Your task to perform on an android device: turn off javascript in the chrome app Image 0: 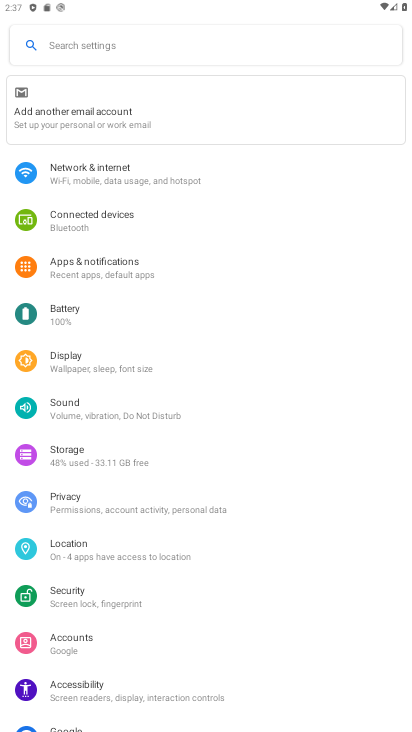
Step 0: press back button
Your task to perform on an android device: turn off javascript in the chrome app Image 1: 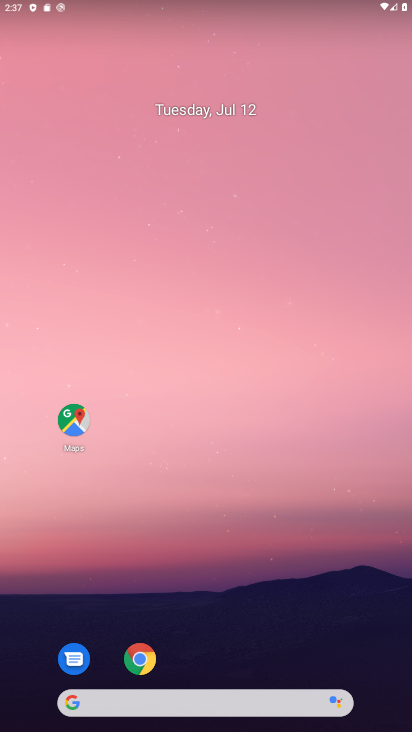
Step 1: drag from (252, 639) to (138, 188)
Your task to perform on an android device: turn off javascript in the chrome app Image 2: 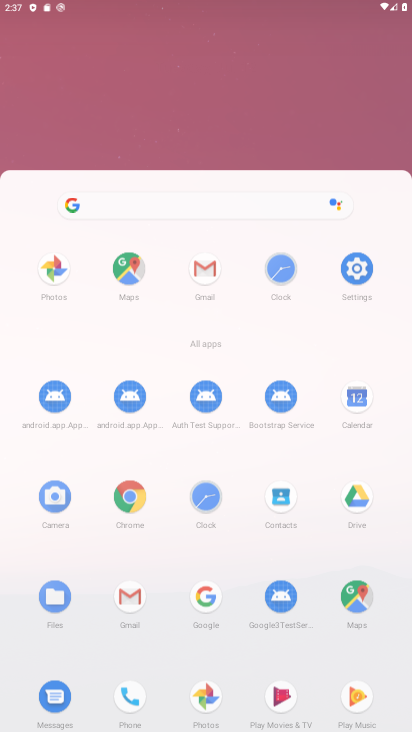
Step 2: drag from (195, 508) to (157, 73)
Your task to perform on an android device: turn off javascript in the chrome app Image 3: 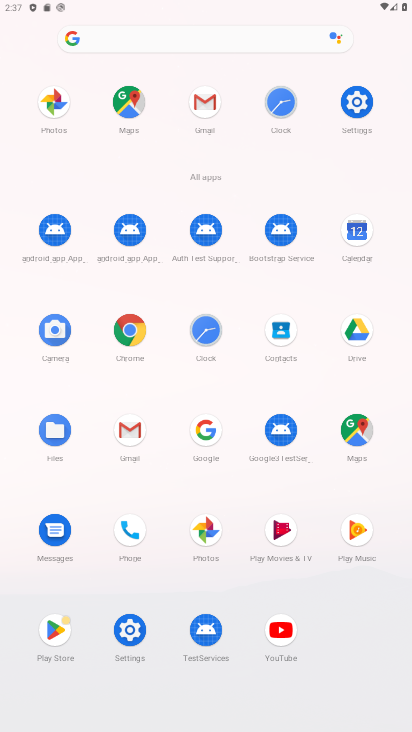
Step 3: click (129, 333)
Your task to perform on an android device: turn off javascript in the chrome app Image 4: 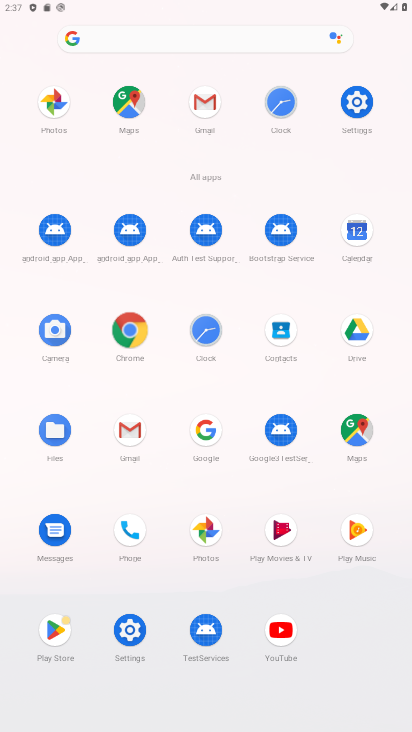
Step 4: click (126, 332)
Your task to perform on an android device: turn off javascript in the chrome app Image 5: 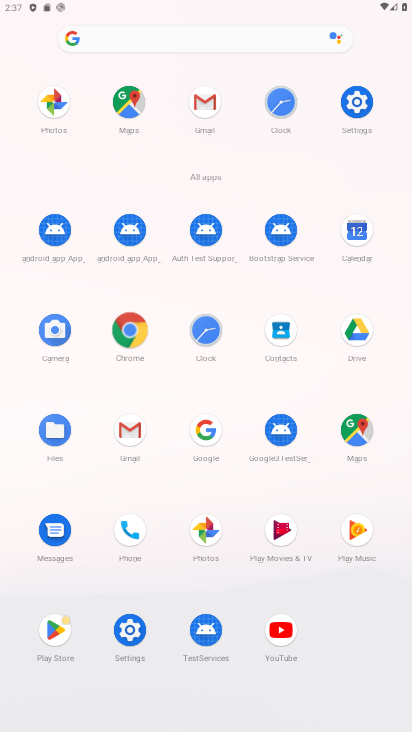
Step 5: click (121, 337)
Your task to perform on an android device: turn off javascript in the chrome app Image 6: 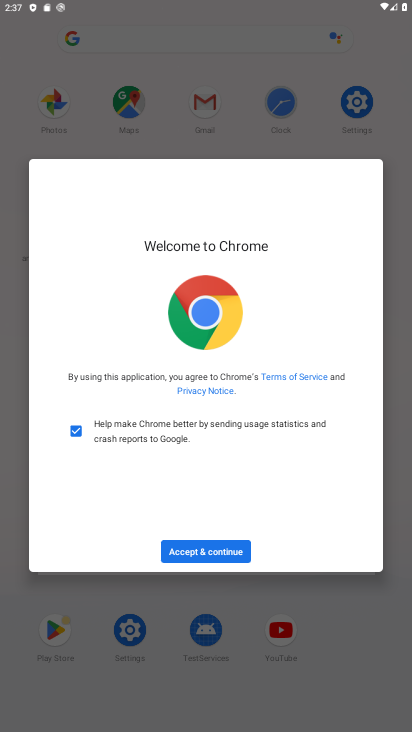
Step 6: click (245, 554)
Your task to perform on an android device: turn off javascript in the chrome app Image 7: 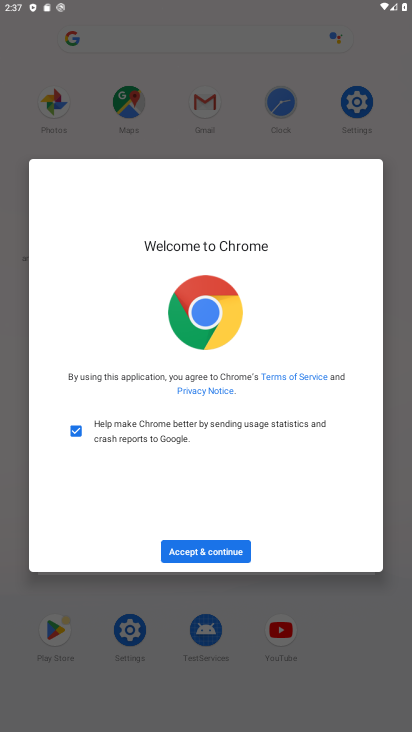
Step 7: click (238, 547)
Your task to perform on an android device: turn off javascript in the chrome app Image 8: 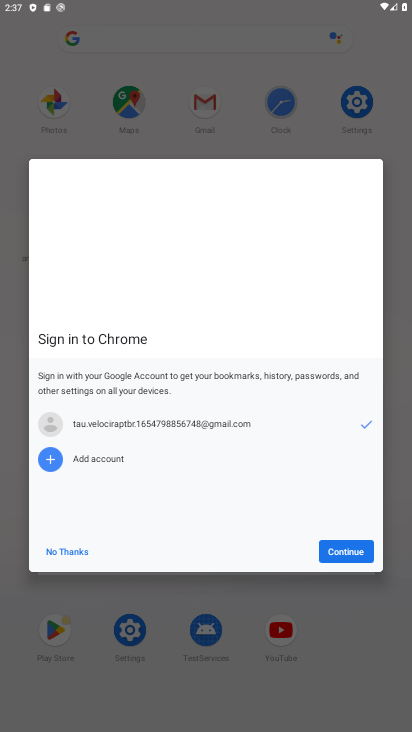
Step 8: click (239, 547)
Your task to perform on an android device: turn off javascript in the chrome app Image 9: 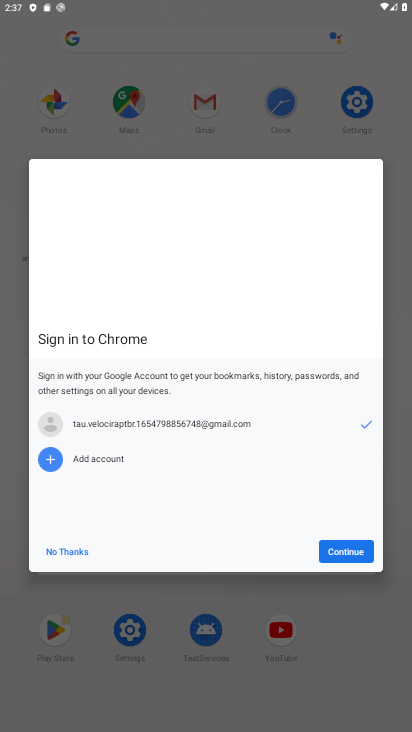
Step 9: click (236, 543)
Your task to perform on an android device: turn off javascript in the chrome app Image 10: 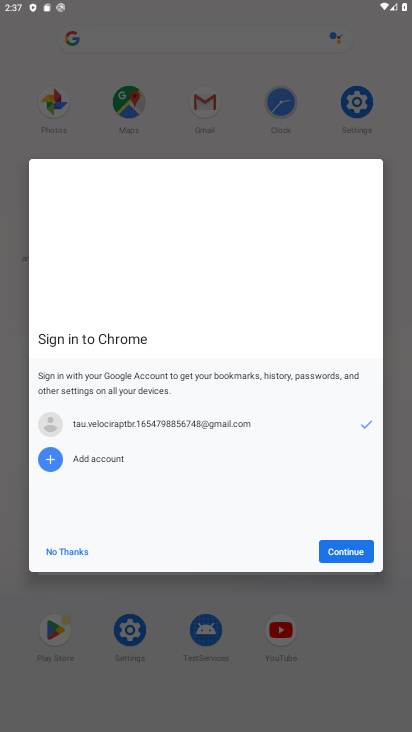
Step 10: click (352, 545)
Your task to perform on an android device: turn off javascript in the chrome app Image 11: 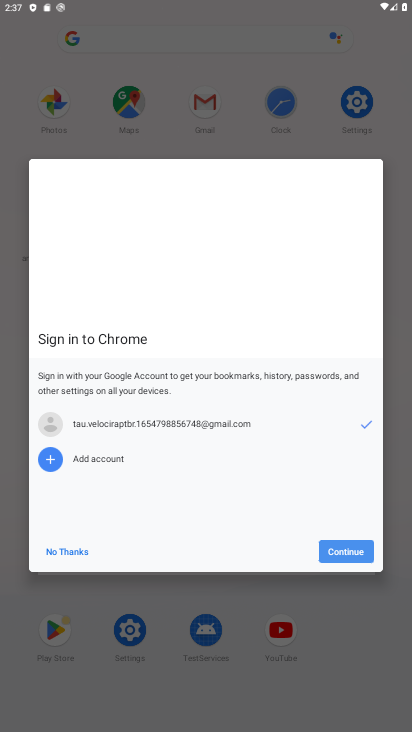
Step 11: click (352, 545)
Your task to perform on an android device: turn off javascript in the chrome app Image 12: 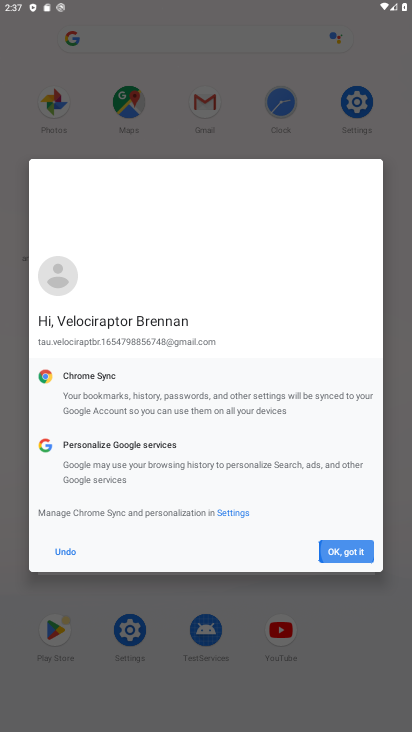
Step 12: click (352, 545)
Your task to perform on an android device: turn off javascript in the chrome app Image 13: 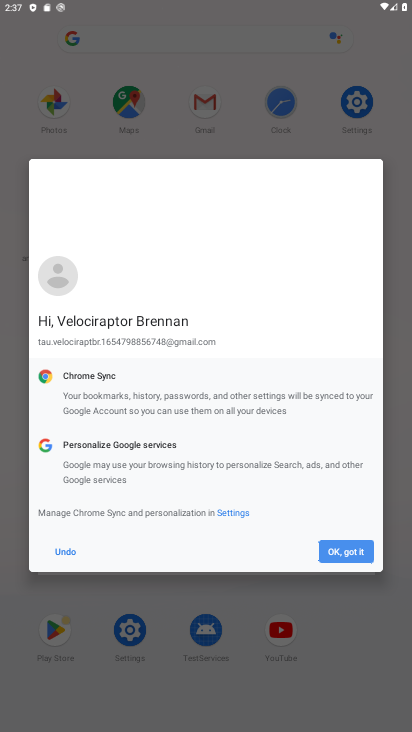
Step 13: click (352, 545)
Your task to perform on an android device: turn off javascript in the chrome app Image 14: 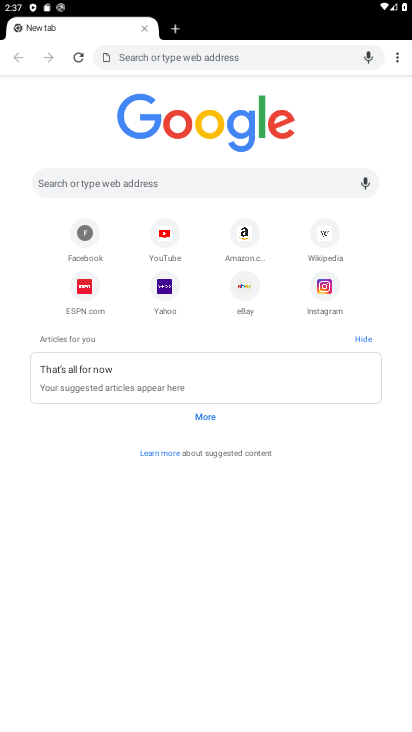
Step 14: drag from (399, 56) to (273, 312)
Your task to perform on an android device: turn off javascript in the chrome app Image 15: 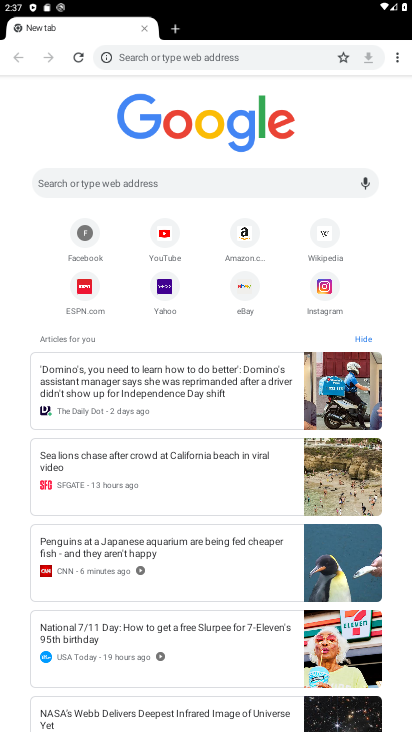
Step 15: click (272, 291)
Your task to perform on an android device: turn off javascript in the chrome app Image 16: 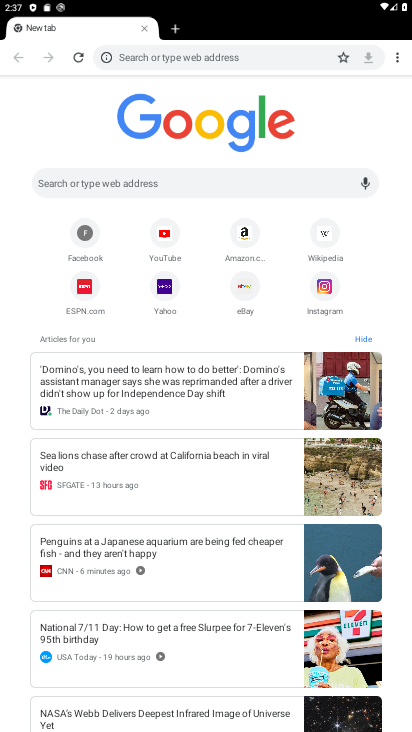
Step 16: click (400, 53)
Your task to perform on an android device: turn off javascript in the chrome app Image 17: 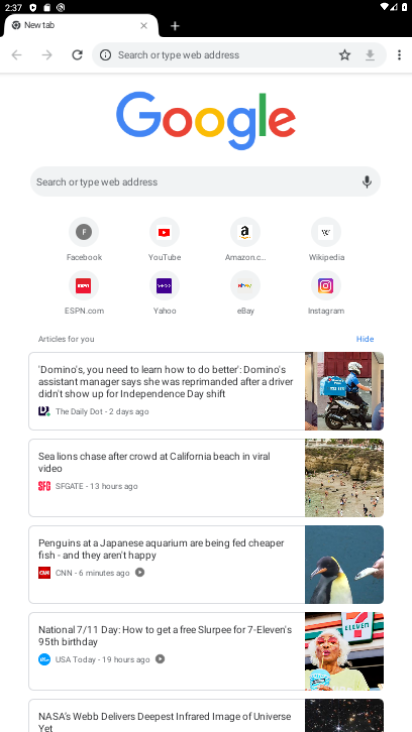
Step 17: drag from (397, 63) to (361, 198)
Your task to perform on an android device: turn off javascript in the chrome app Image 18: 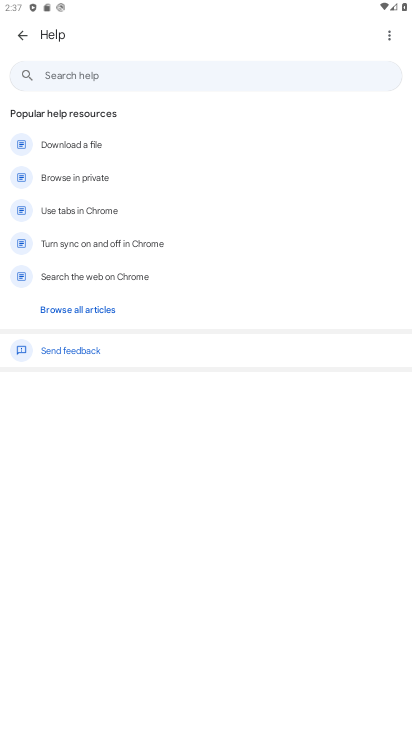
Step 18: click (28, 31)
Your task to perform on an android device: turn off javascript in the chrome app Image 19: 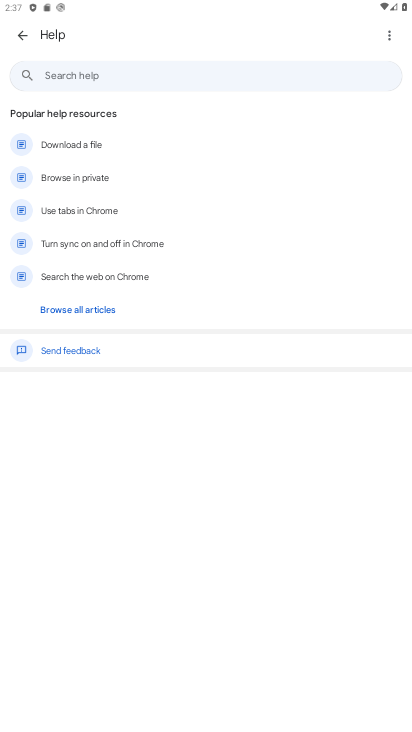
Step 19: click (29, 27)
Your task to perform on an android device: turn off javascript in the chrome app Image 20: 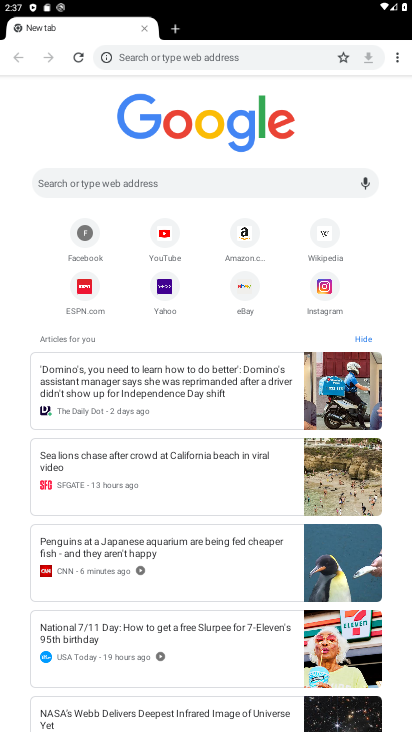
Step 20: drag from (395, 59) to (270, 297)
Your task to perform on an android device: turn off javascript in the chrome app Image 21: 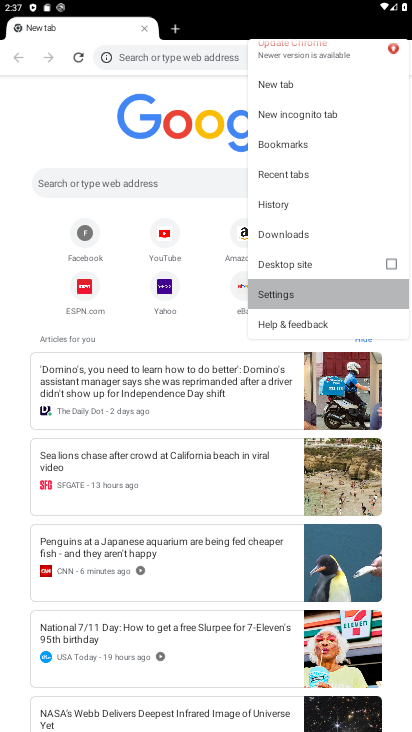
Step 21: click (270, 296)
Your task to perform on an android device: turn off javascript in the chrome app Image 22: 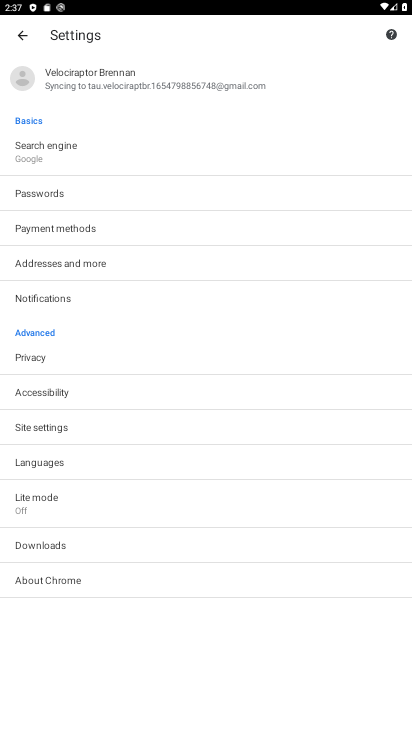
Step 22: task complete